Your task to perform on an android device: see sites visited before in the chrome app Image 0: 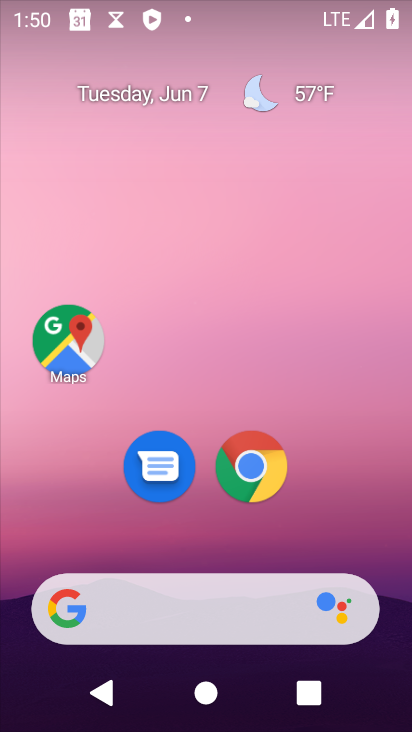
Step 0: click (239, 459)
Your task to perform on an android device: see sites visited before in the chrome app Image 1: 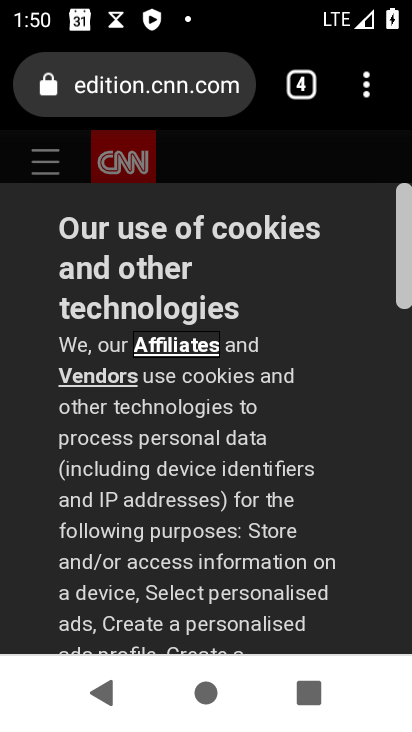
Step 1: task complete